Your task to perform on an android device: Open accessibility settings Image 0: 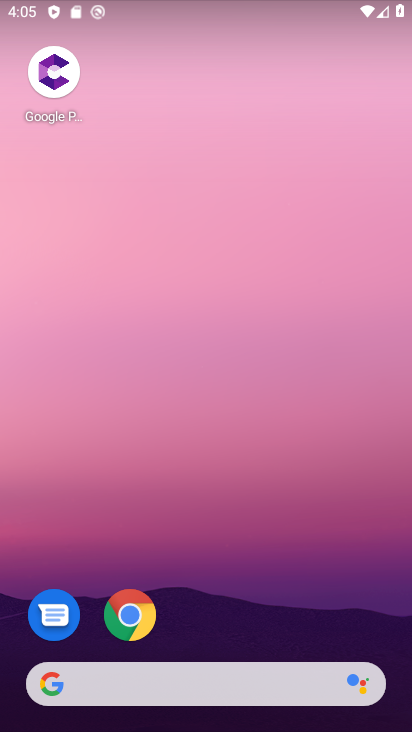
Step 0: drag from (231, 666) to (268, 235)
Your task to perform on an android device: Open accessibility settings Image 1: 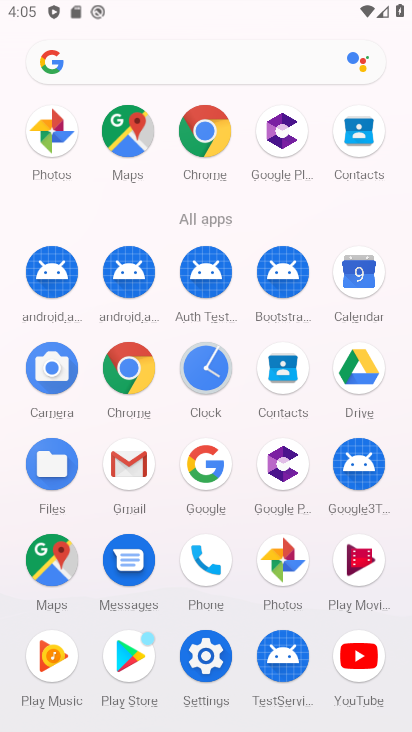
Step 1: click (193, 656)
Your task to perform on an android device: Open accessibility settings Image 2: 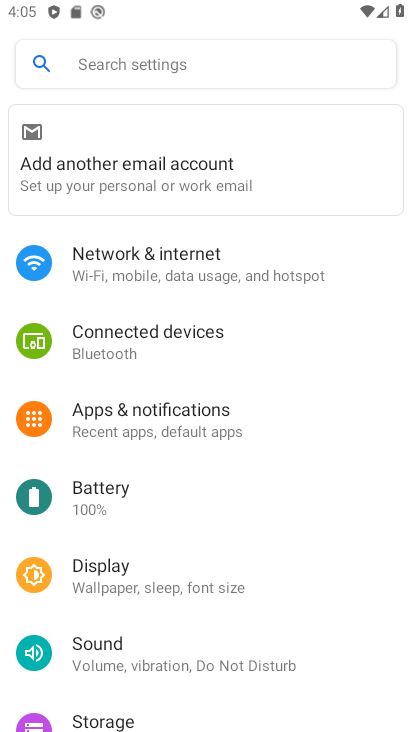
Step 2: drag from (177, 670) to (177, 326)
Your task to perform on an android device: Open accessibility settings Image 3: 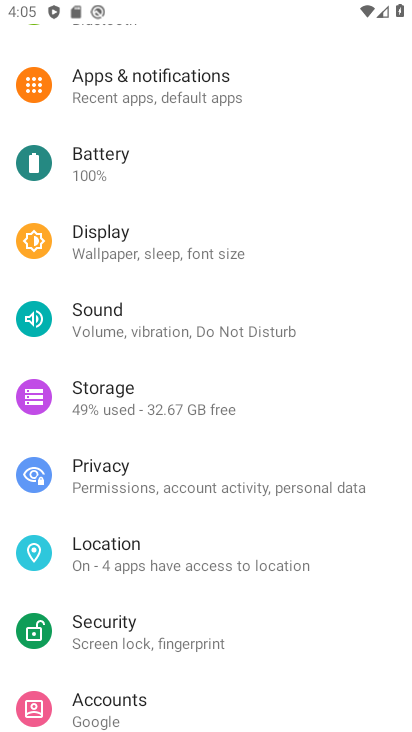
Step 3: drag from (157, 702) to (182, 325)
Your task to perform on an android device: Open accessibility settings Image 4: 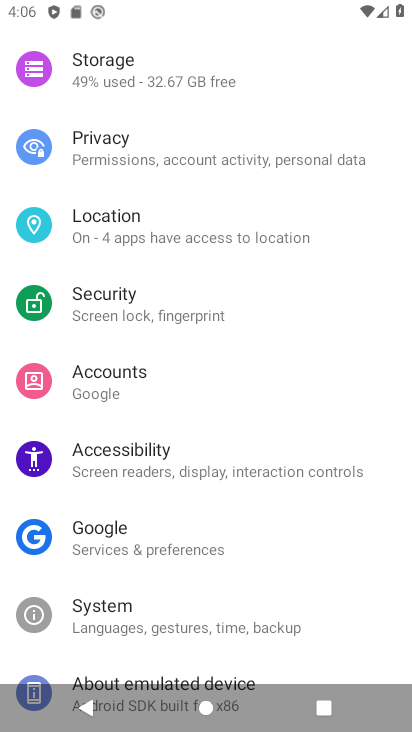
Step 4: drag from (141, 657) to (173, 312)
Your task to perform on an android device: Open accessibility settings Image 5: 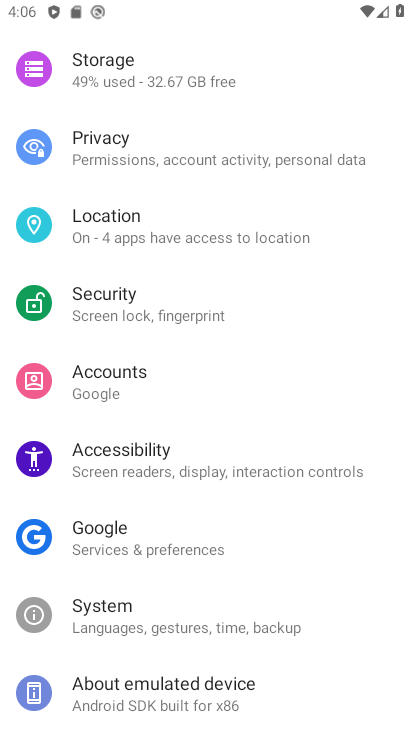
Step 5: click (171, 457)
Your task to perform on an android device: Open accessibility settings Image 6: 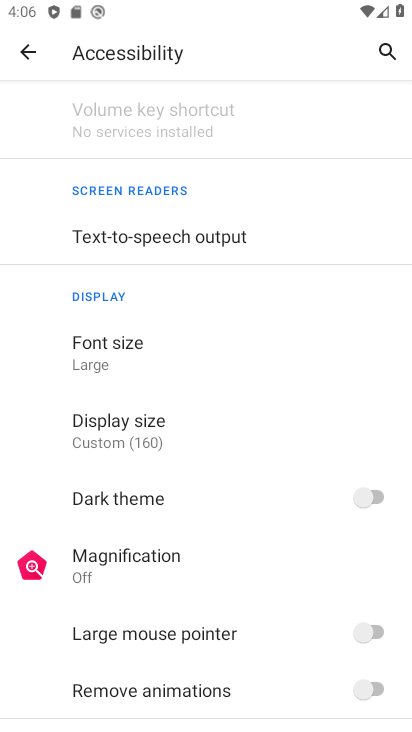
Step 6: task complete